Your task to perform on an android device: Go to CNN.com Image 0: 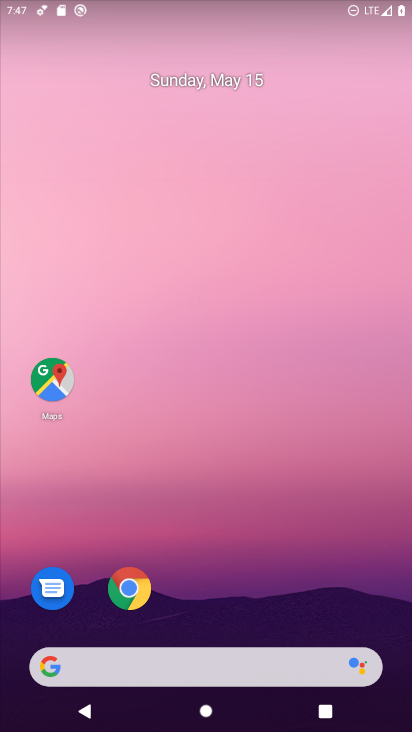
Step 0: drag from (326, 622) to (244, 18)
Your task to perform on an android device: Go to CNN.com Image 1: 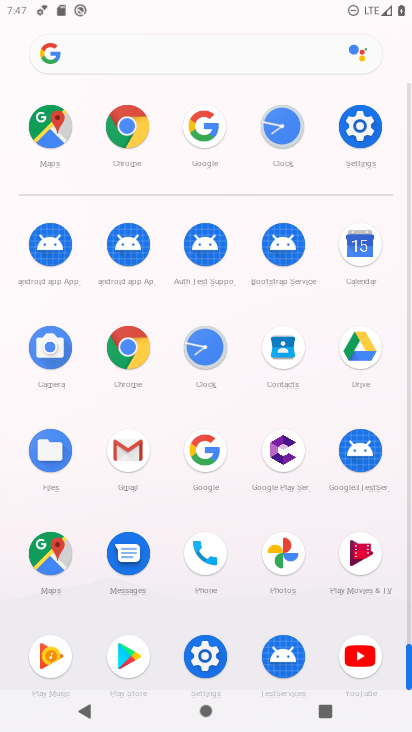
Step 1: click (138, 353)
Your task to perform on an android device: Go to CNN.com Image 2: 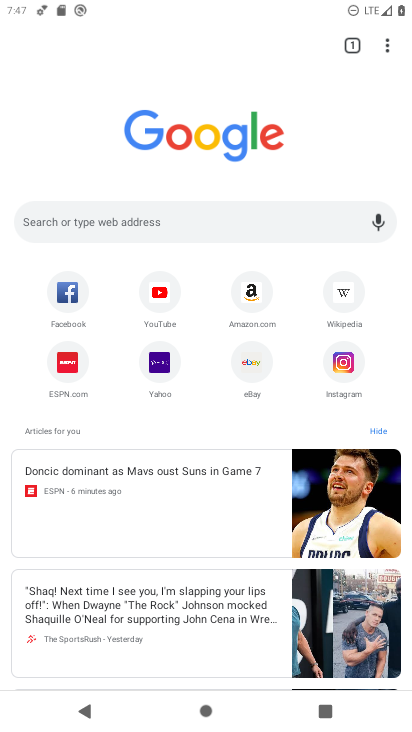
Step 2: click (173, 204)
Your task to perform on an android device: Go to CNN.com Image 3: 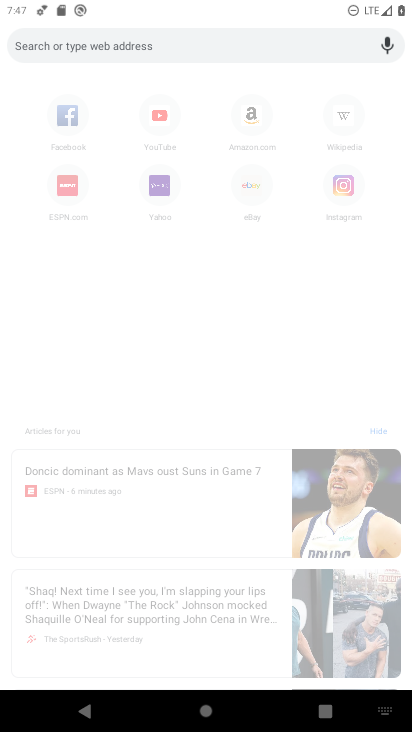
Step 3: type "cnn.com"
Your task to perform on an android device: Go to CNN.com Image 4: 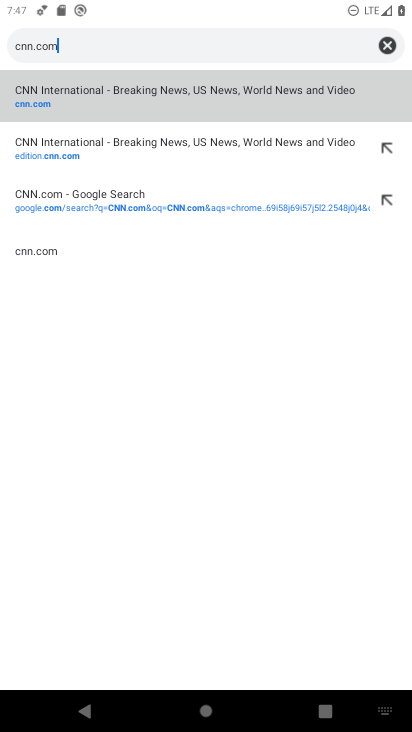
Step 4: click (141, 101)
Your task to perform on an android device: Go to CNN.com Image 5: 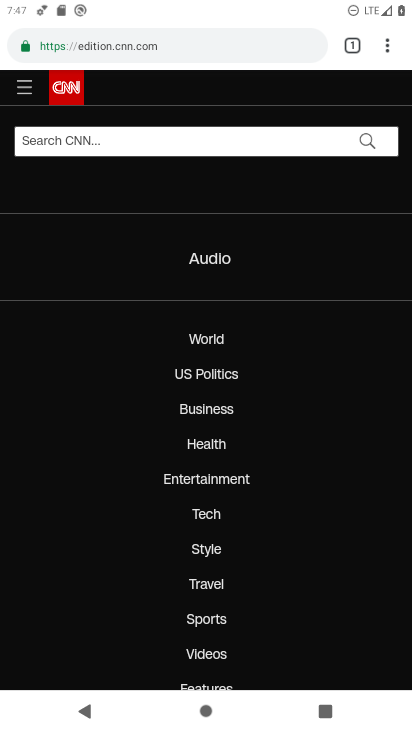
Step 5: task complete